Your task to perform on an android device: Open privacy settings Image 0: 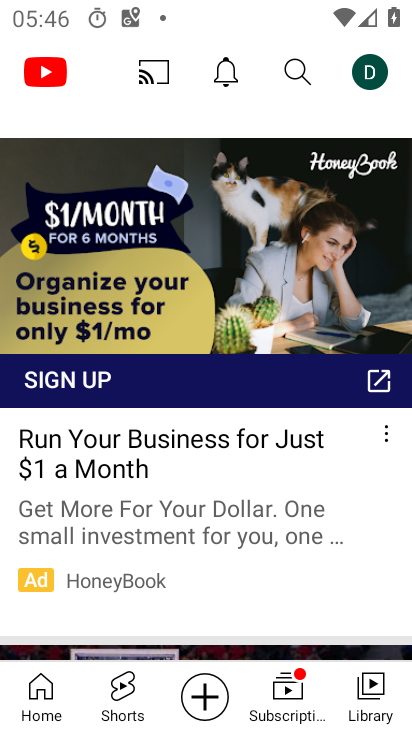
Step 0: press home button
Your task to perform on an android device: Open privacy settings Image 1: 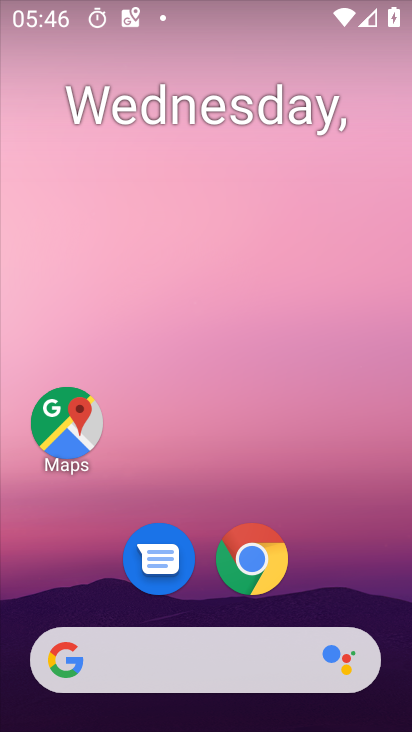
Step 1: drag from (330, 568) to (221, 27)
Your task to perform on an android device: Open privacy settings Image 2: 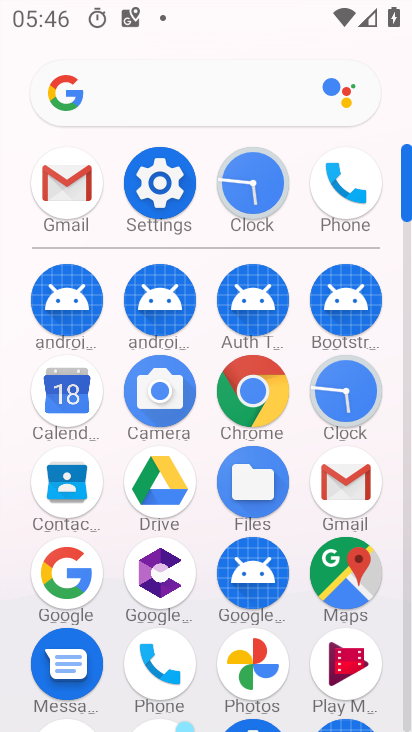
Step 2: click (153, 168)
Your task to perform on an android device: Open privacy settings Image 3: 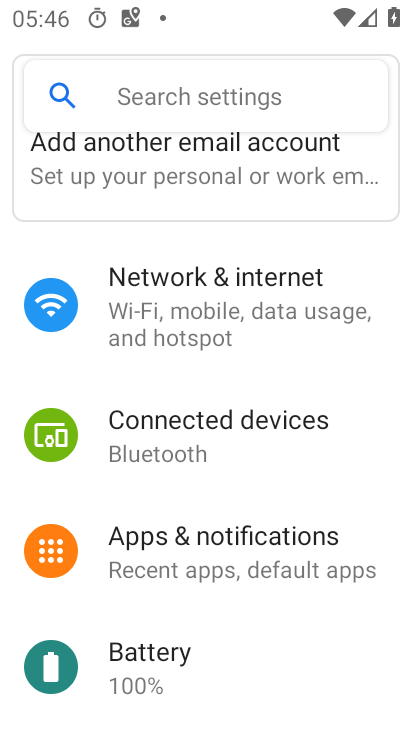
Step 3: drag from (289, 624) to (223, 193)
Your task to perform on an android device: Open privacy settings Image 4: 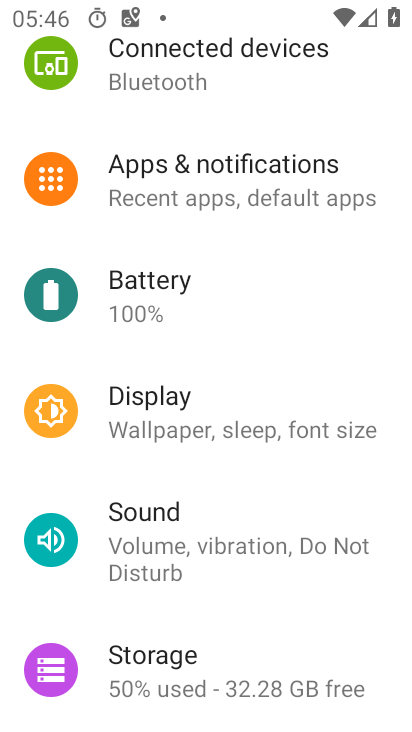
Step 4: drag from (273, 634) to (258, 91)
Your task to perform on an android device: Open privacy settings Image 5: 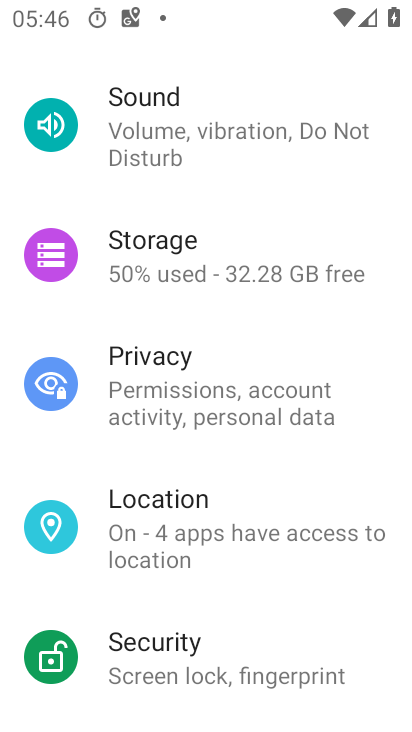
Step 5: click (209, 361)
Your task to perform on an android device: Open privacy settings Image 6: 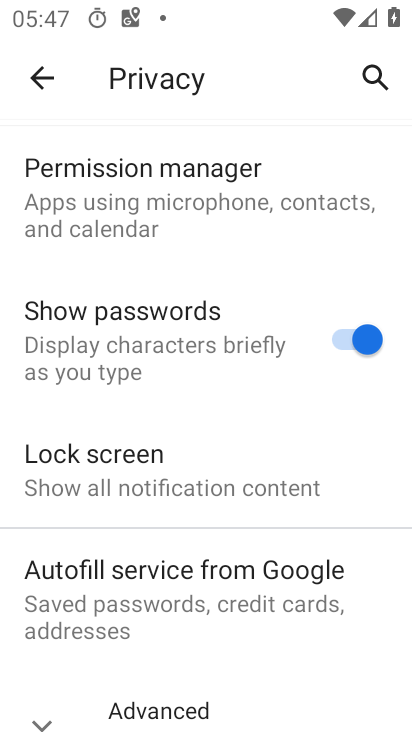
Step 6: task complete